Your task to perform on an android device: toggle data saver in the chrome app Image 0: 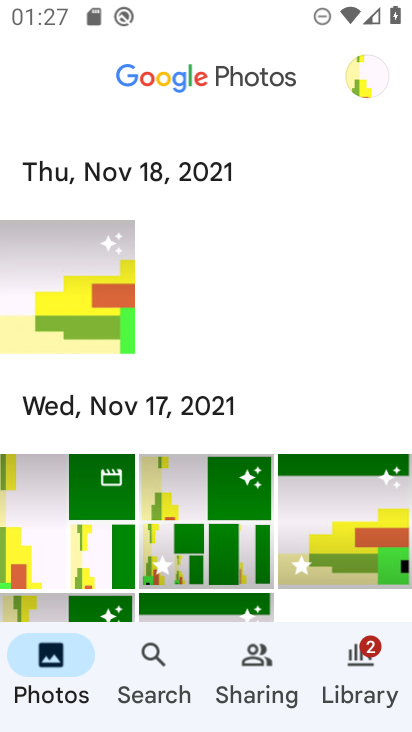
Step 0: press home button
Your task to perform on an android device: toggle data saver in the chrome app Image 1: 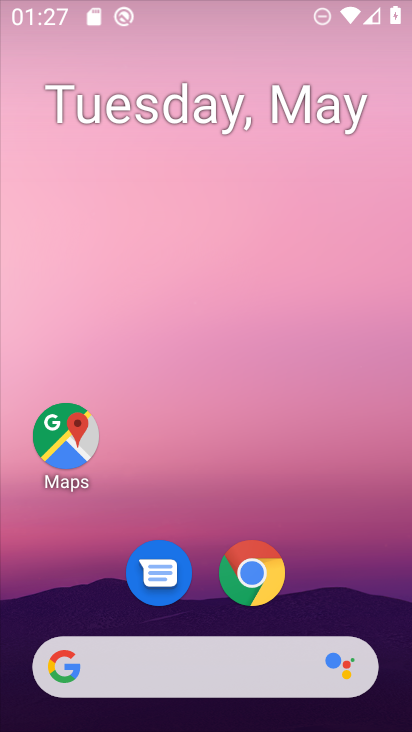
Step 1: click (324, 627)
Your task to perform on an android device: toggle data saver in the chrome app Image 2: 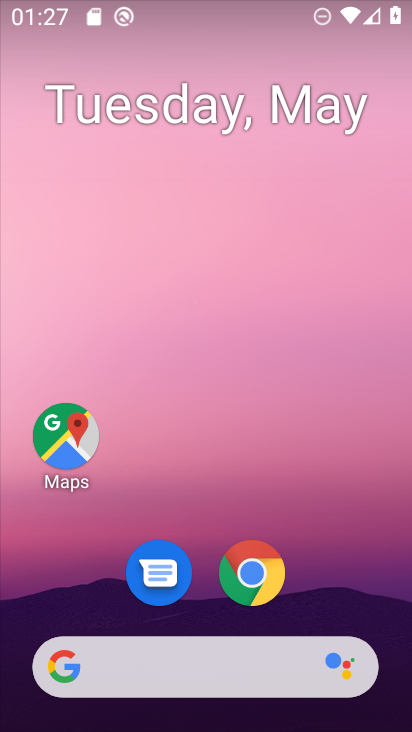
Step 2: click (269, 590)
Your task to perform on an android device: toggle data saver in the chrome app Image 3: 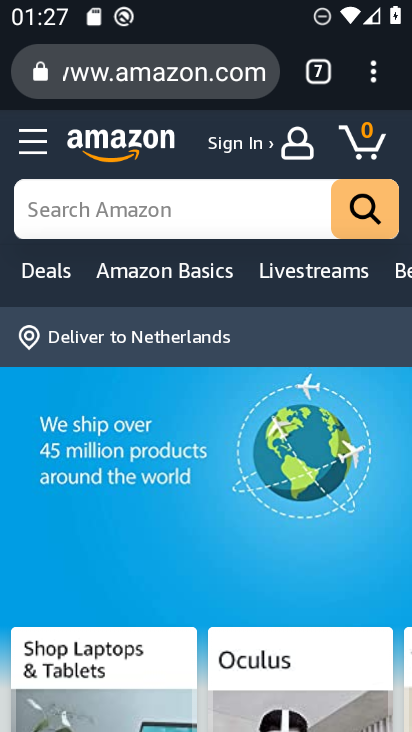
Step 3: click (381, 68)
Your task to perform on an android device: toggle data saver in the chrome app Image 4: 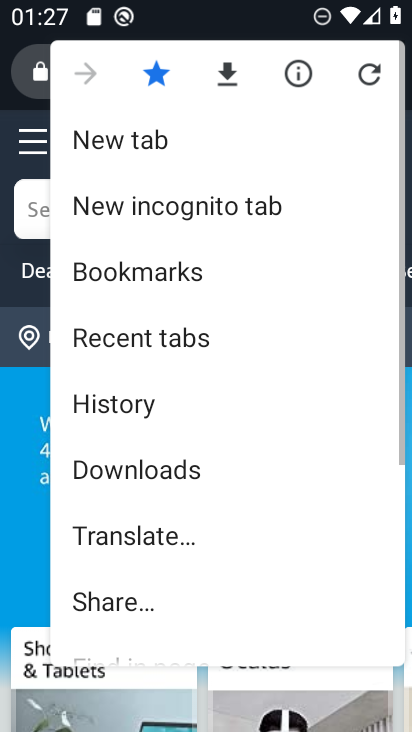
Step 4: drag from (213, 547) to (231, 139)
Your task to perform on an android device: toggle data saver in the chrome app Image 5: 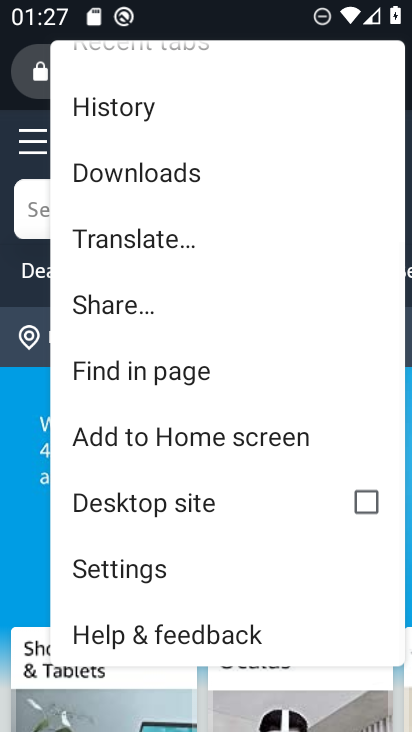
Step 5: click (157, 566)
Your task to perform on an android device: toggle data saver in the chrome app Image 6: 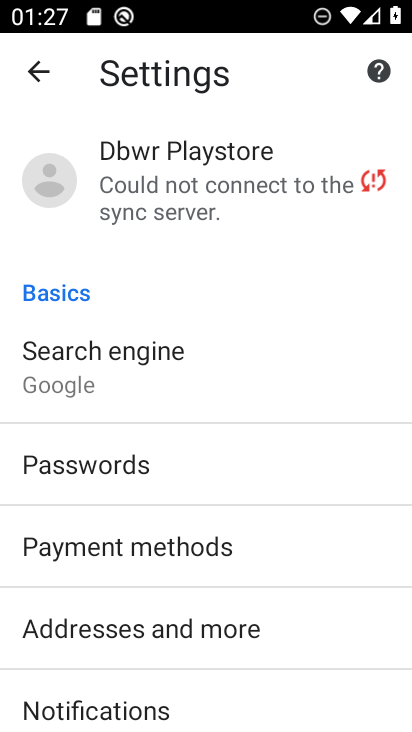
Step 6: drag from (188, 649) to (185, 183)
Your task to perform on an android device: toggle data saver in the chrome app Image 7: 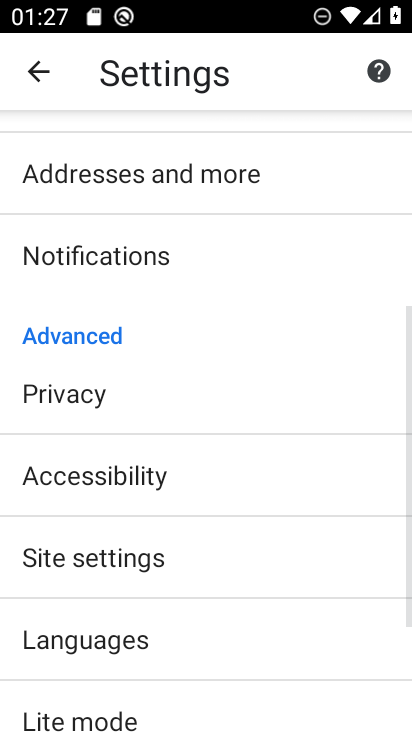
Step 7: drag from (129, 555) to (163, 264)
Your task to perform on an android device: toggle data saver in the chrome app Image 8: 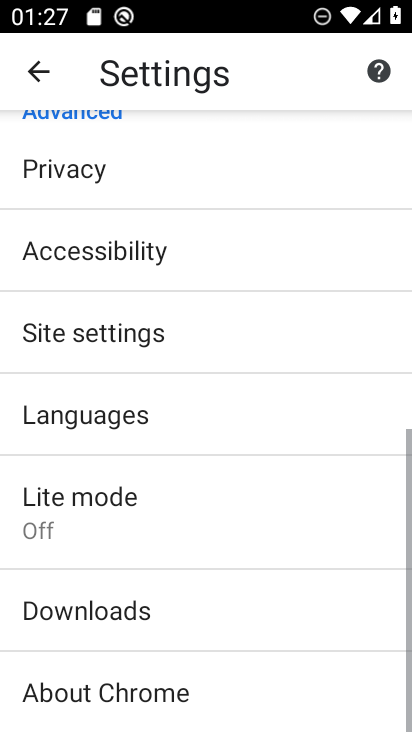
Step 8: click (127, 517)
Your task to perform on an android device: toggle data saver in the chrome app Image 9: 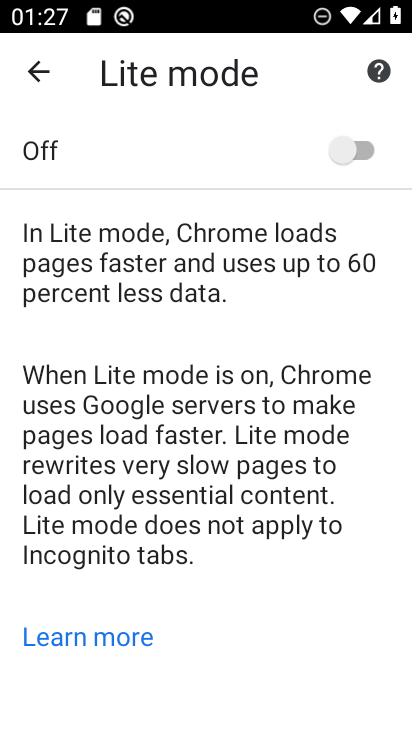
Step 9: click (343, 136)
Your task to perform on an android device: toggle data saver in the chrome app Image 10: 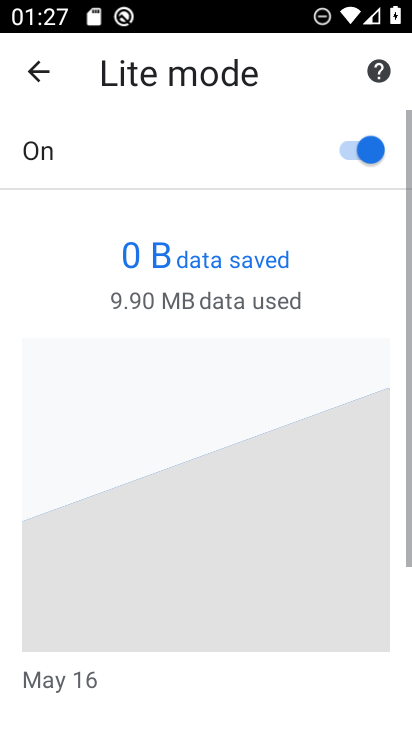
Step 10: task complete